Your task to perform on an android device: clear history in the chrome app Image 0: 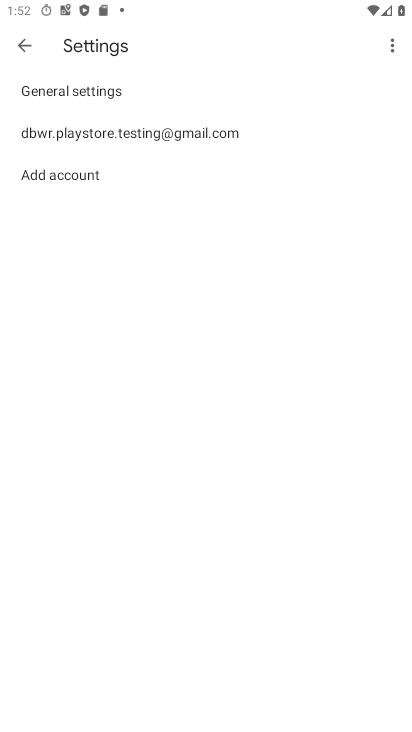
Step 0: press home button
Your task to perform on an android device: clear history in the chrome app Image 1: 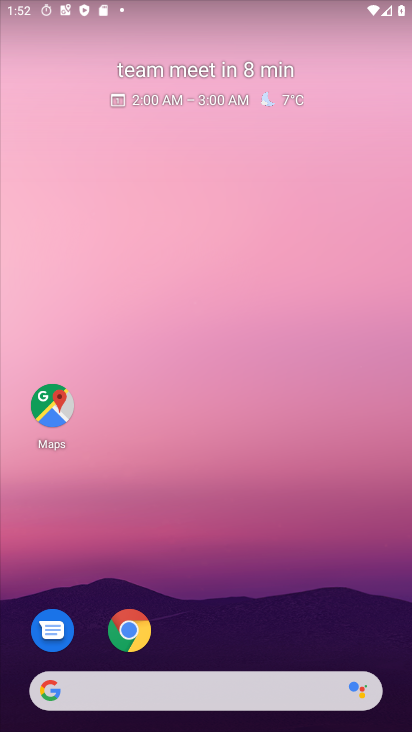
Step 1: drag from (226, 674) to (185, 285)
Your task to perform on an android device: clear history in the chrome app Image 2: 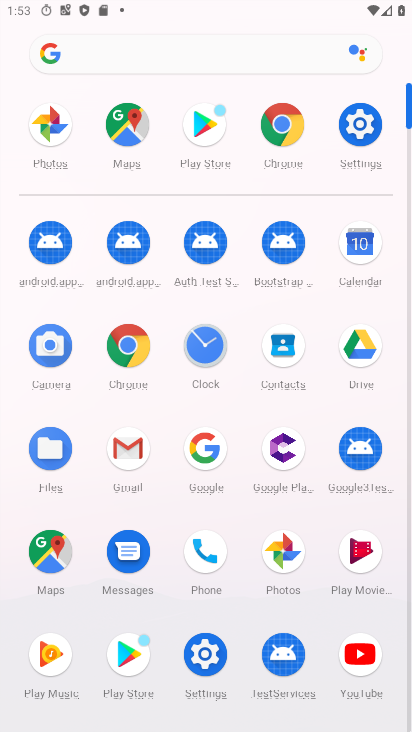
Step 2: click (129, 366)
Your task to perform on an android device: clear history in the chrome app Image 3: 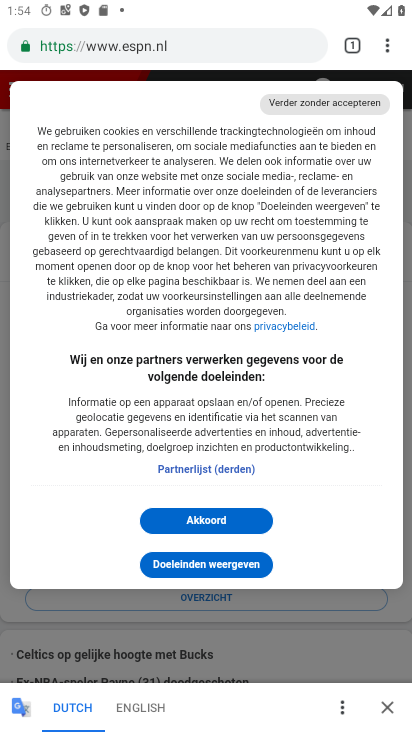
Step 3: click (390, 49)
Your task to perform on an android device: clear history in the chrome app Image 4: 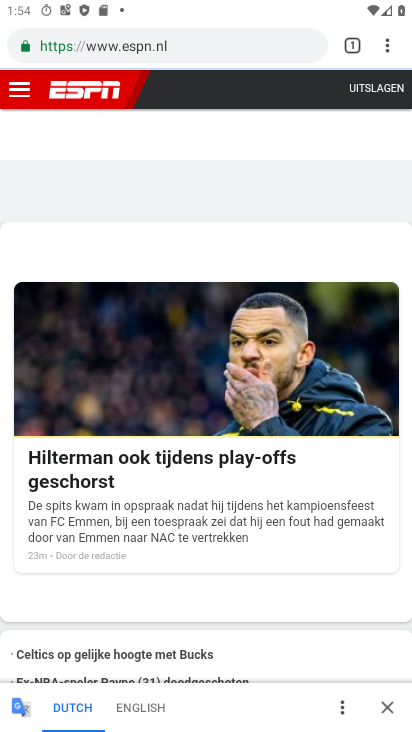
Step 4: drag from (394, 52) to (253, 247)
Your task to perform on an android device: clear history in the chrome app Image 5: 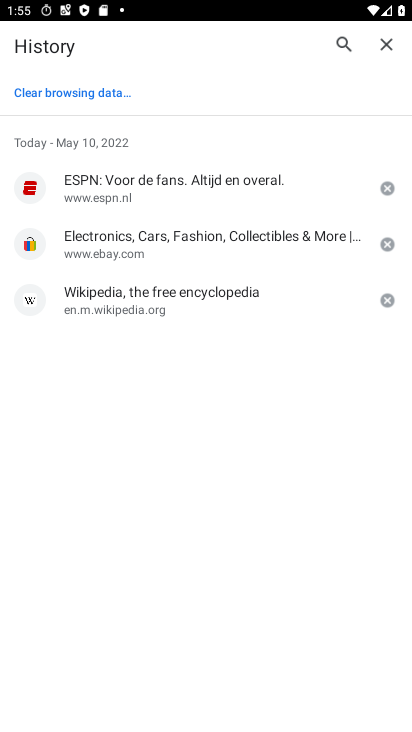
Step 5: click (388, 67)
Your task to perform on an android device: clear history in the chrome app Image 6: 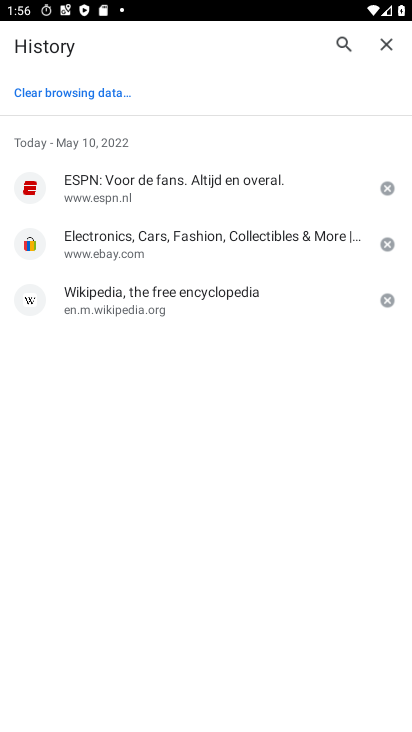
Step 6: click (387, 45)
Your task to perform on an android device: clear history in the chrome app Image 7: 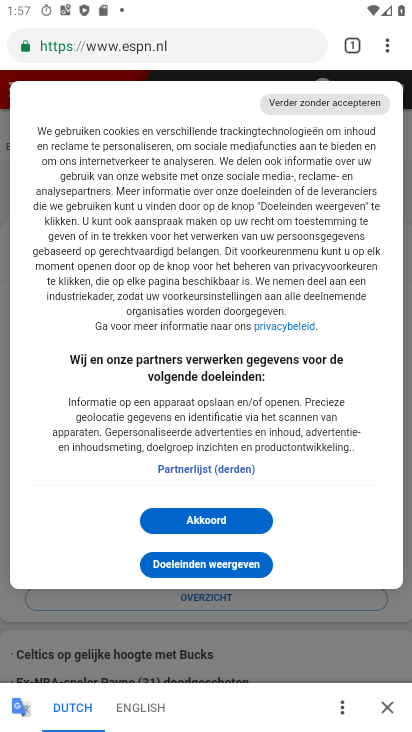
Step 7: click (396, 49)
Your task to perform on an android device: clear history in the chrome app Image 8: 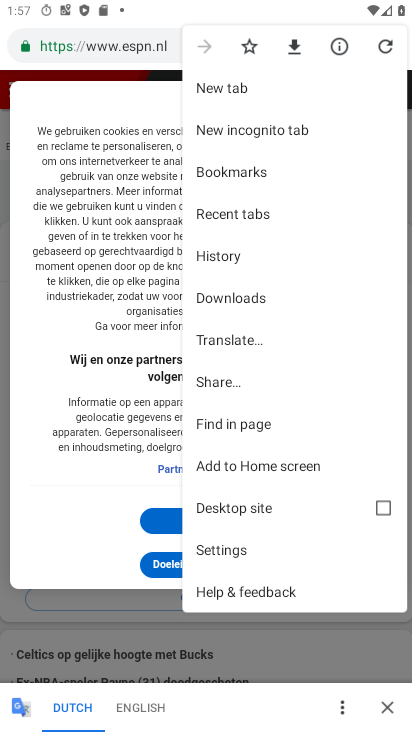
Step 8: click (226, 263)
Your task to perform on an android device: clear history in the chrome app Image 9: 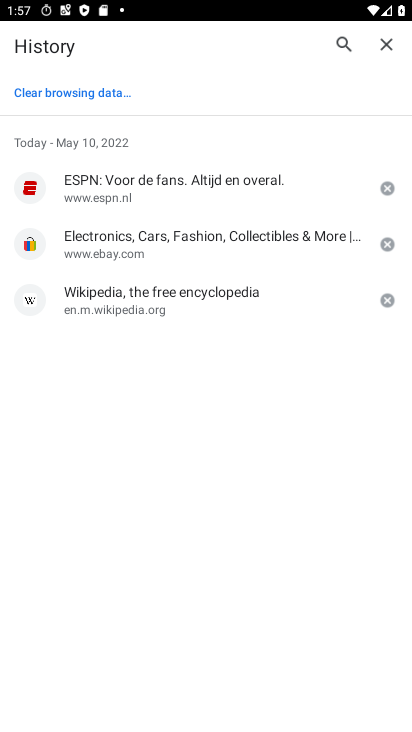
Step 9: click (91, 89)
Your task to perform on an android device: clear history in the chrome app Image 10: 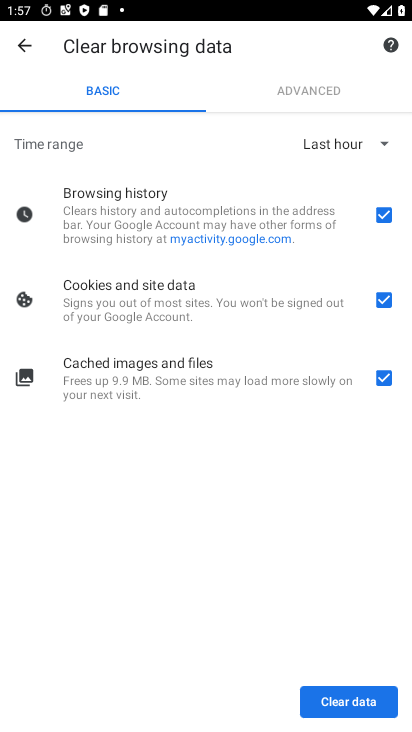
Step 10: click (330, 704)
Your task to perform on an android device: clear history in the chrome app Image 11: 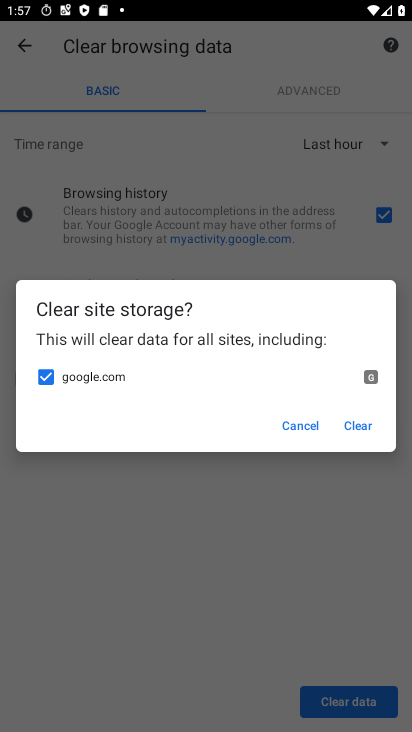
Step 11: click (356, 427)
Your task to perform on an android device: clear history in the chrome app Image 12: 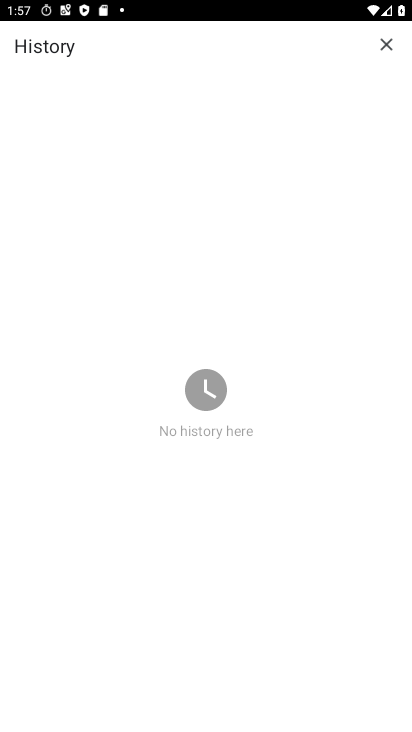
Step 12: task complete